Your task to perform on an android device: Open my contact list Image 0: 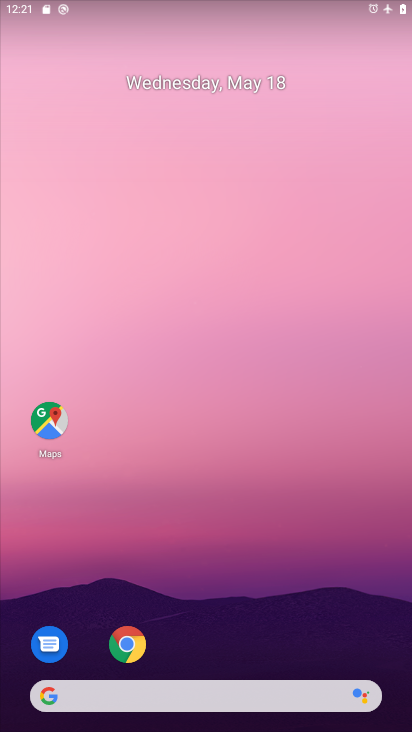
Step 0: drag from (222, 649) to (263, 126)
Your task to perform on an android device: Open my contact list Image 1: 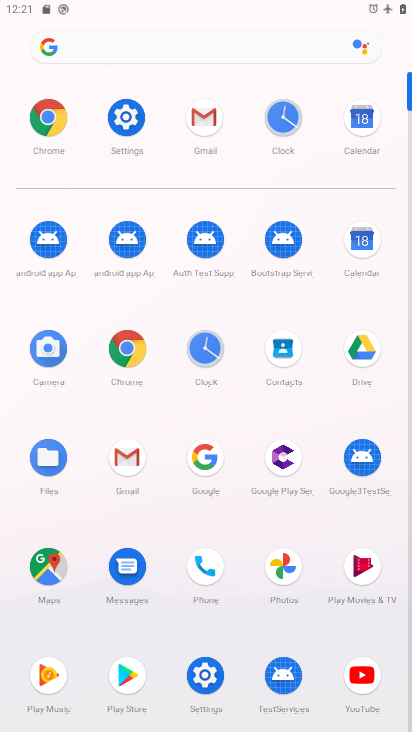
Step 1: click (285, 346)
Your task to perform on an android device: Open my contact list Image 2: 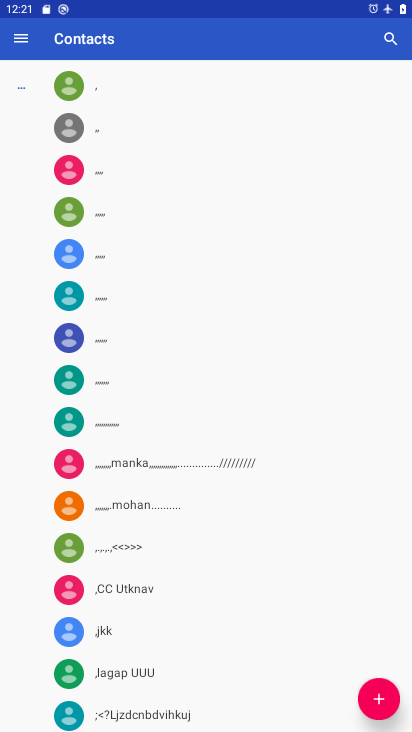
Step 2: task complete